Your task to perform on an android device: Search for beats solo 3 on ebay, select the first entry, and add it to the cart. Image 0: 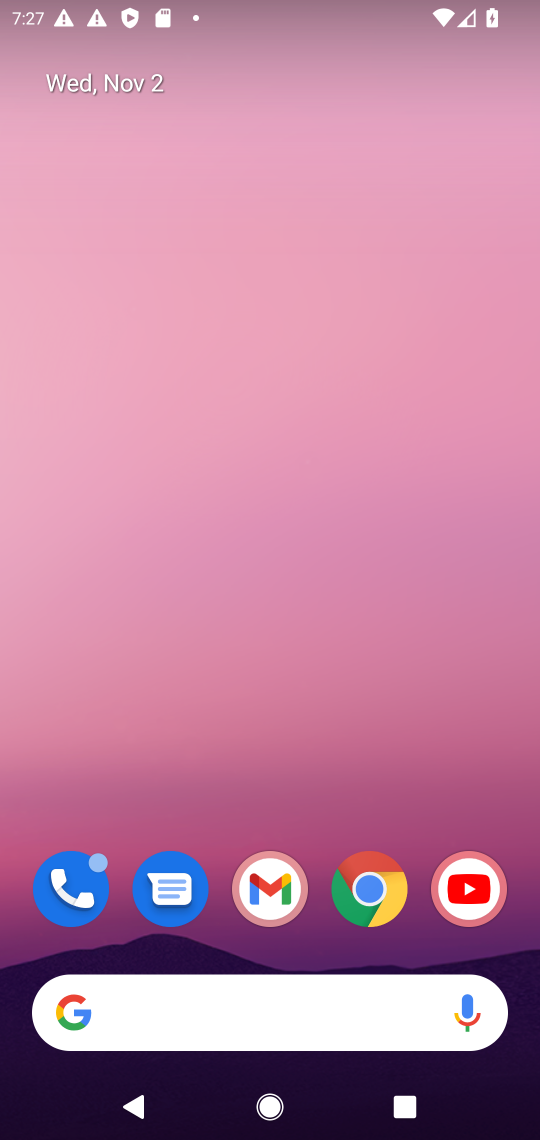
Step 0: press home button
Your task to perform on an android device: Search for beats solo 3 on ebay, select the first entry, and add it to the cart. Image 1: 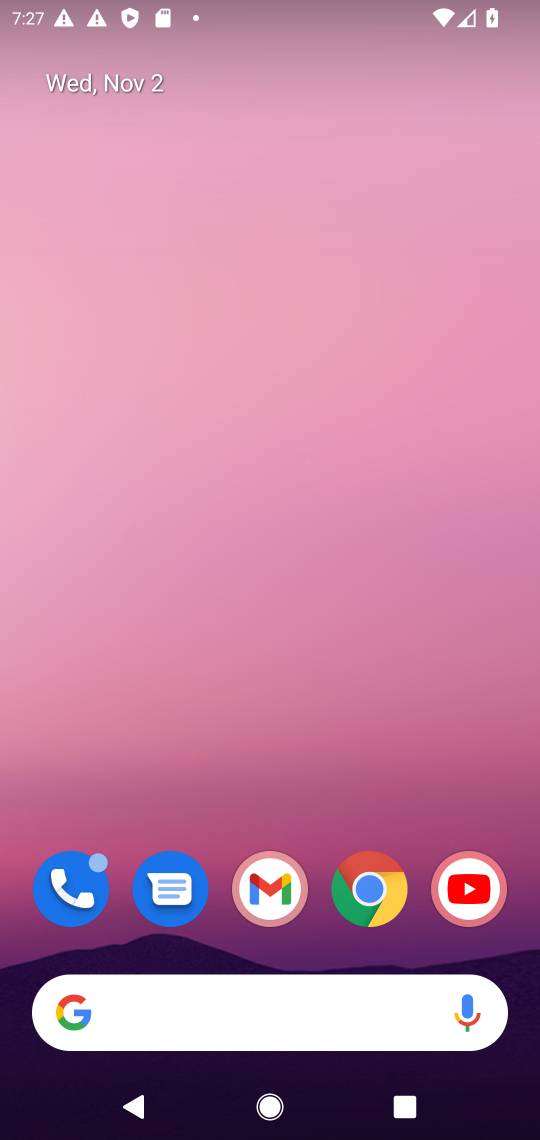
Step 1: drag from (313, 846) to (286, 128)
Your task to perform on an android device: Search for beats solo 3 on ebay, select the first entry, and add it to the cart. Image 2: 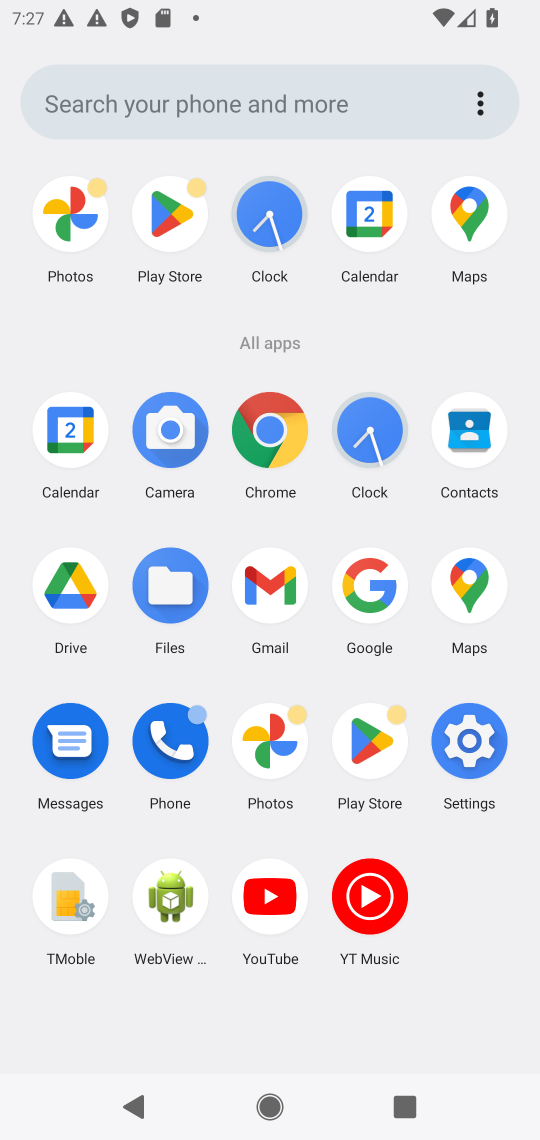
Step 2: click (266, 424)
Your task to perform on an android device: Search for beats solo 3 on ebay, select the first entry, and add it to the cart. Image 3: 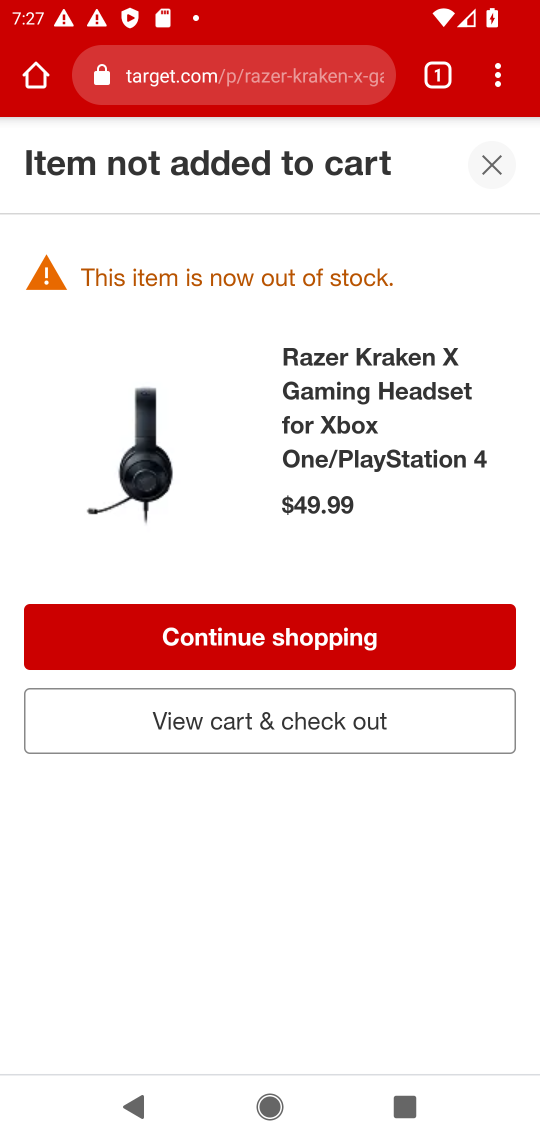
Step 3: click (494, 165)
Your task to perform on an android device: Search for beats solo 3 on ebay, select the first entry, and add it to the cart. Image 4: 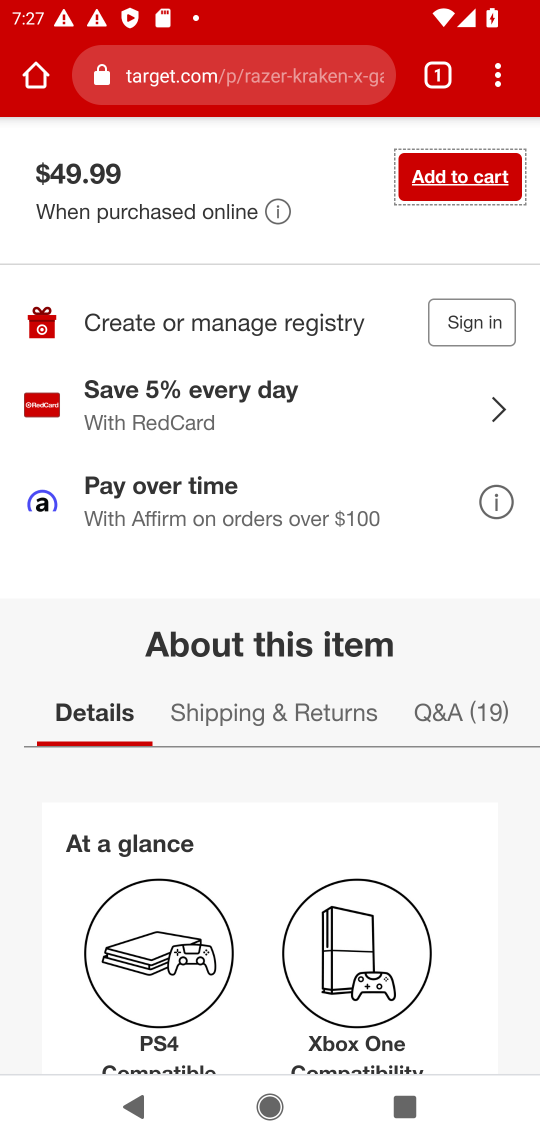
Step 4: click (171, 82)
Your task to perform on an android device: Search for beats solo 3 on ebay, select the first entry, and add it to the cart. Image 5: 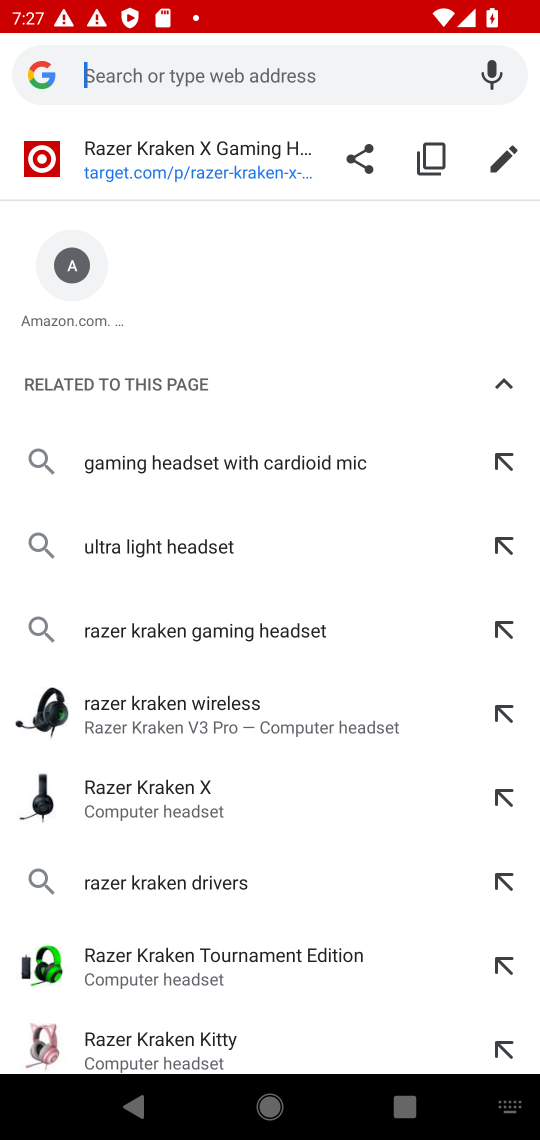
Step 5: type "ebay"
Your task to perform on an android device: Search for beats solo 3 on ebay, select the first entry, and add it to the cart. Image 6: 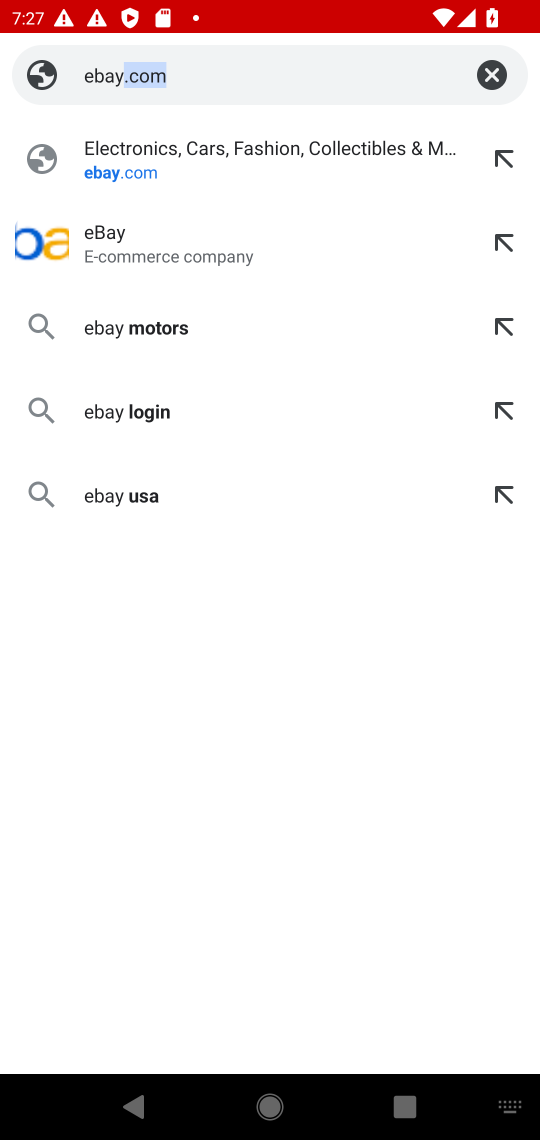
Step 6: click (160, 163)
Your task to perform on an android device: Search for beats solo 3 on ebay, select the first entry, and add it to the cart. Image 7: 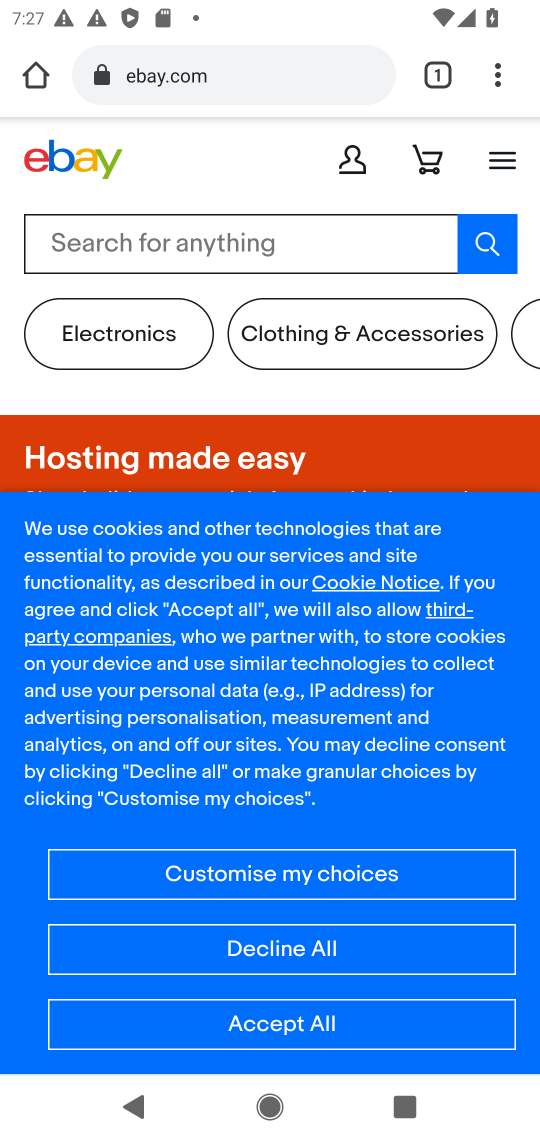
Step 7: click (299, 1033)
Your task to perform on an android device: Search for beats solo 3 on ebay, select the first entry, and add it to the cart. Image 8: 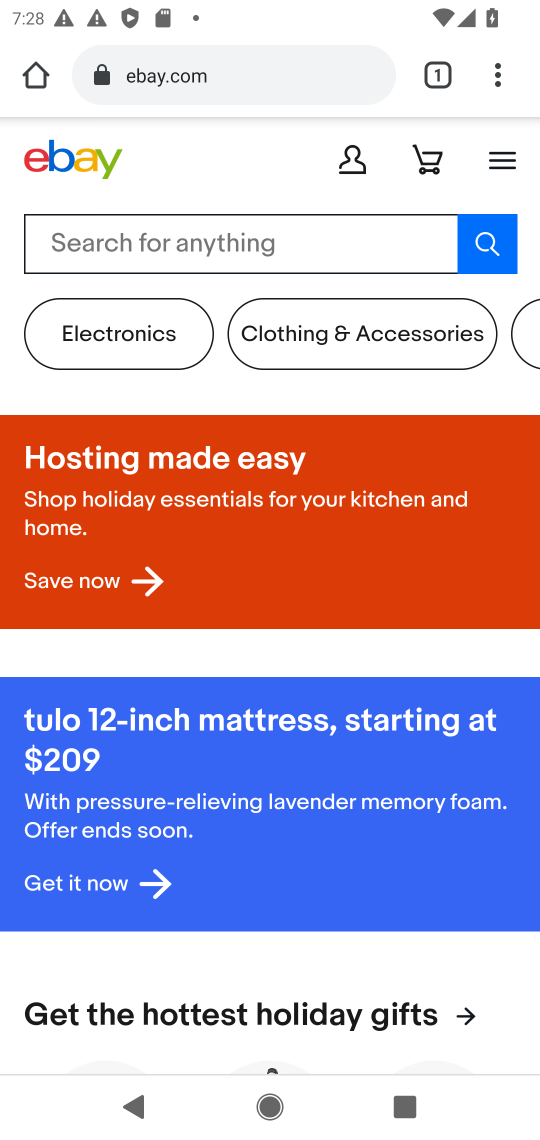
Step 8: click (198, 235)
Your task to perform on an android device: Search for beats solo 3 on ebay, select the first entry, and add it to the cart. Image 9: 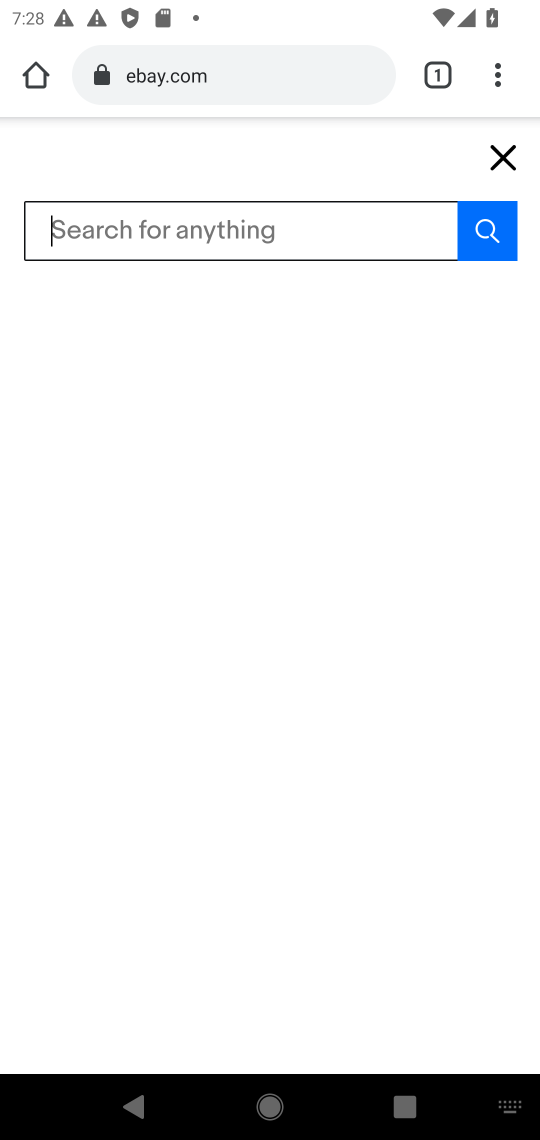
Step 9: type "beats solo 3"
Your task to perform on an android device: Search for beats solo 3 on ebay, select the first entry, and add it to the cart. Image 10: 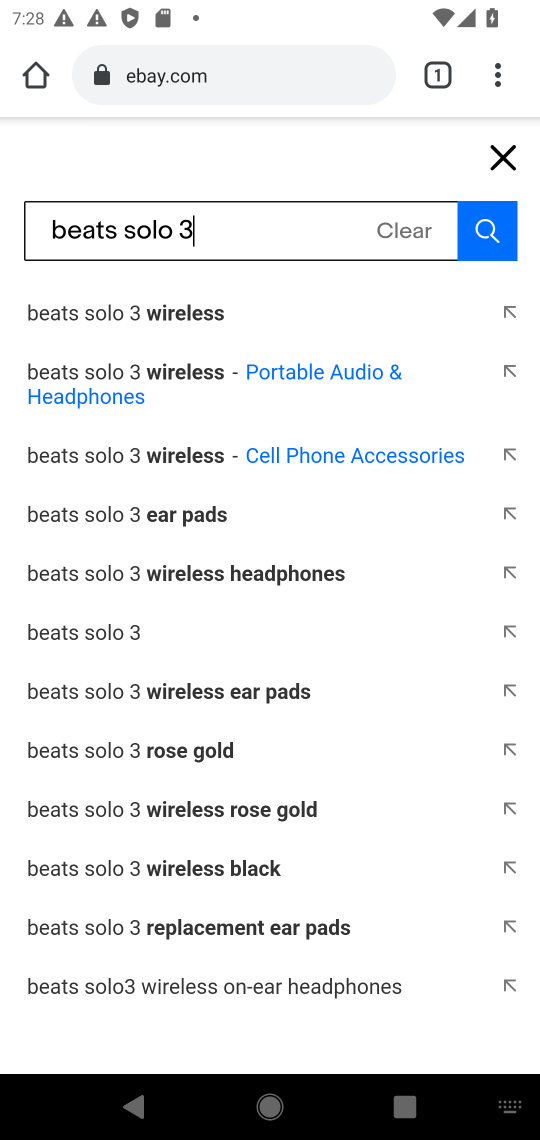
Step 10: click (243, 373)
Your task to perform on an android device: Search for beats solo 3 on ebay, select the first entry, and add it to the cart. Image 11: 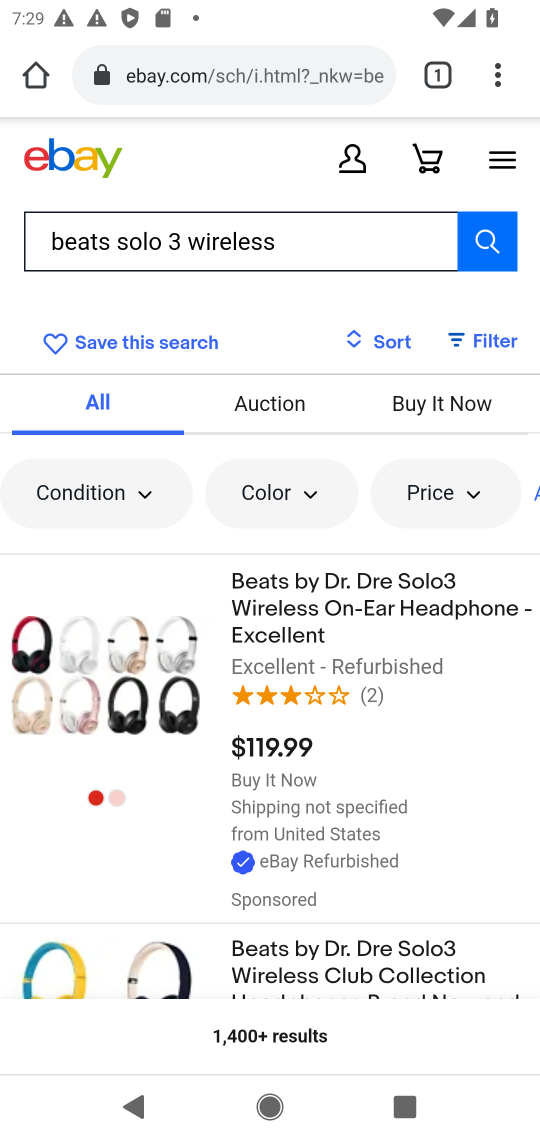
Step 11: click (314, 604)
Your task to perform on an android device: Search for beats solo 3 on ebay, select the first entry, and add it to the cart. Image 12: 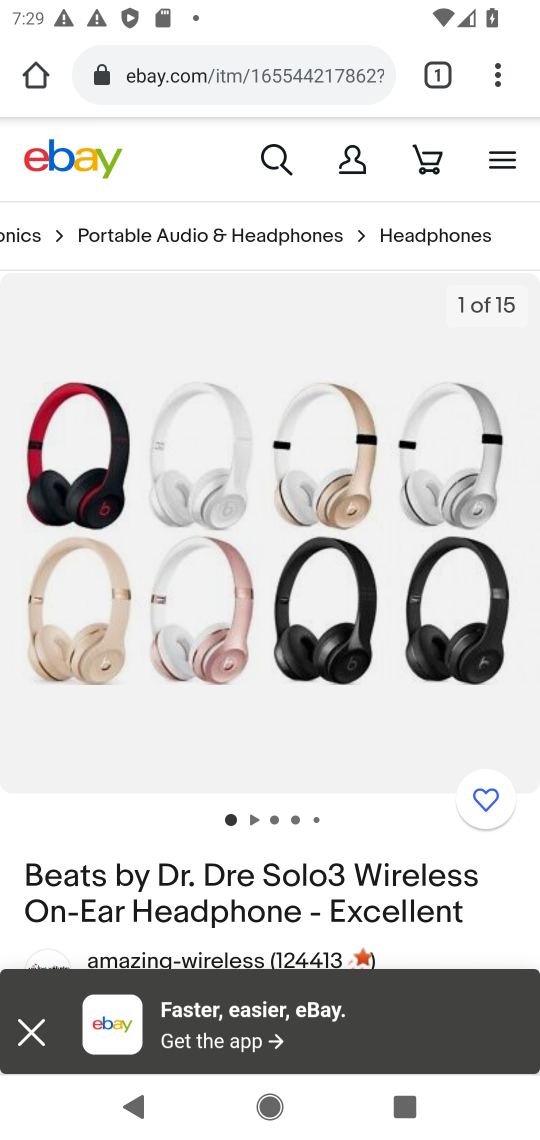
Step 12: drag from (302, 894) to (300, 270)
Your task to perform on an android device: Search for beats solo 3 on ebay, select the first entry, and add it to the cart. Image 13: 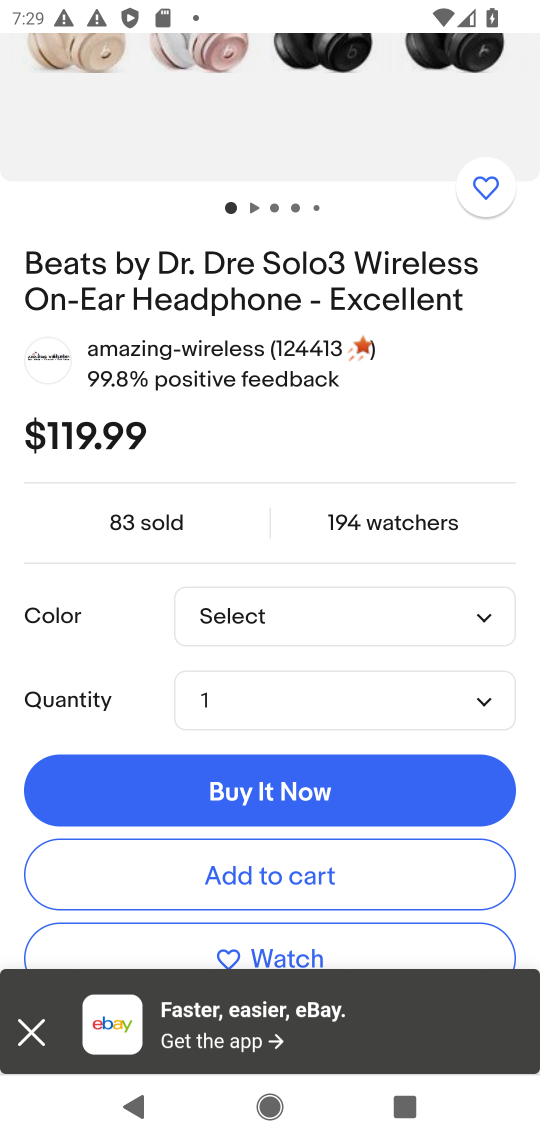
Step 13: click (267, 869)
Your task to perform on an android device: Search for beats solo 3 on ebay, select the first entry, and add it to the cart. Image 14: 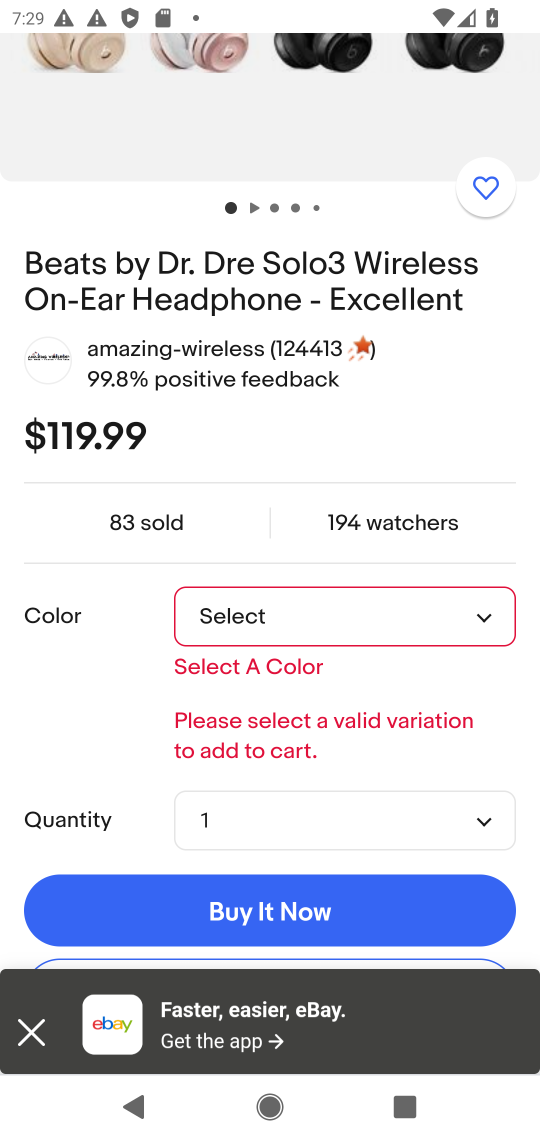
Step 14: drag from (304, 849) to (309, 542)
Your task to perform on an android device: Search for beats solo 3 on ebay, select the first entry, and add it to the cart. Image 15: 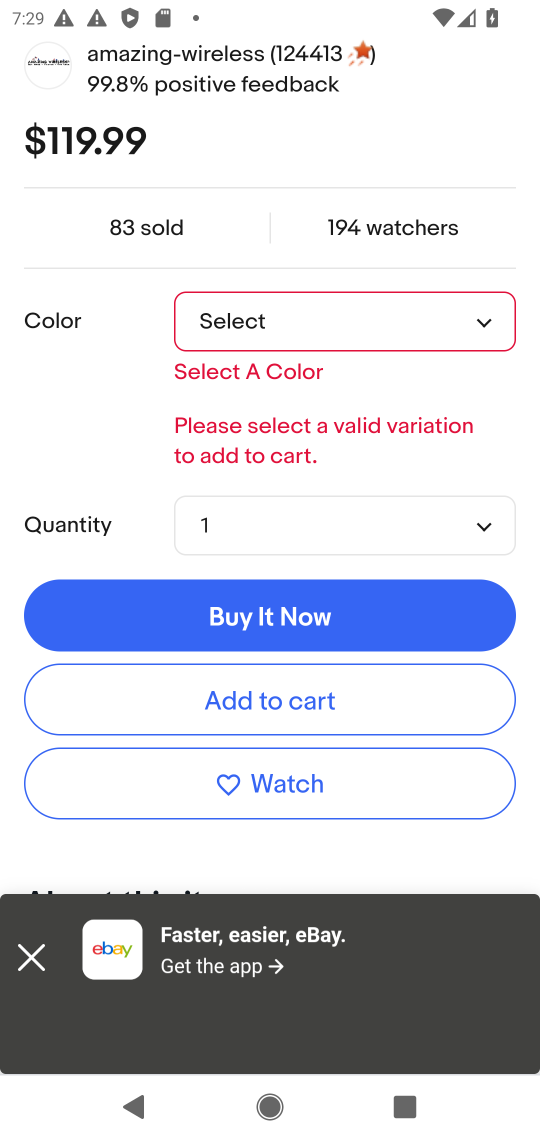
Step 15: click (477, 318)
Your task to perform on an android device: Search for beats solo 3 on ebay, select the first entry, and add it to the cart. Image 16: 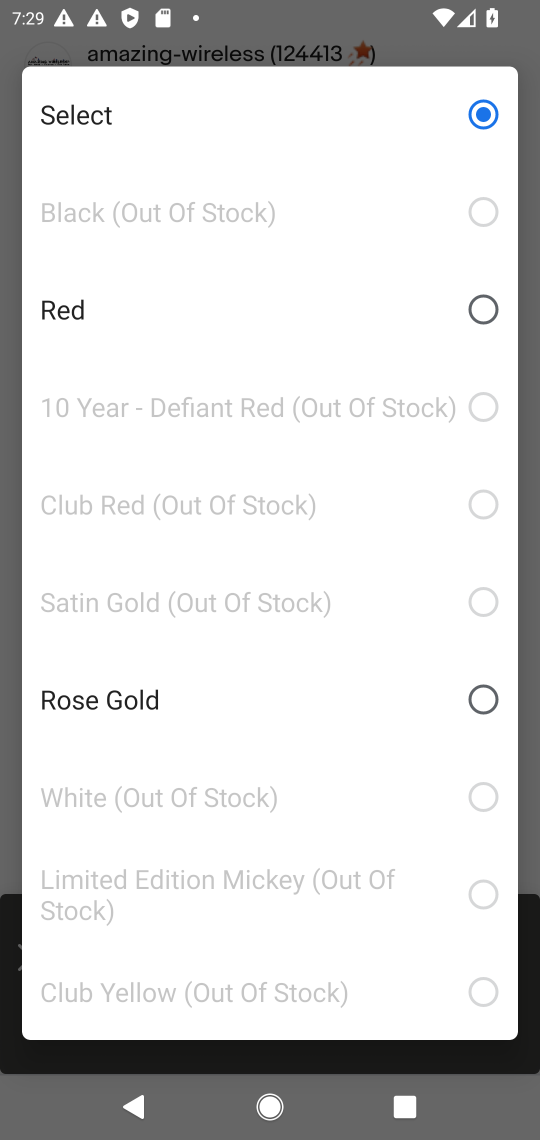
Step 16: click (479, 313)
Your task to perform on an android device: Search for beats solo 3 on ebay, select the first entry, and add it to the cart. Image 17: 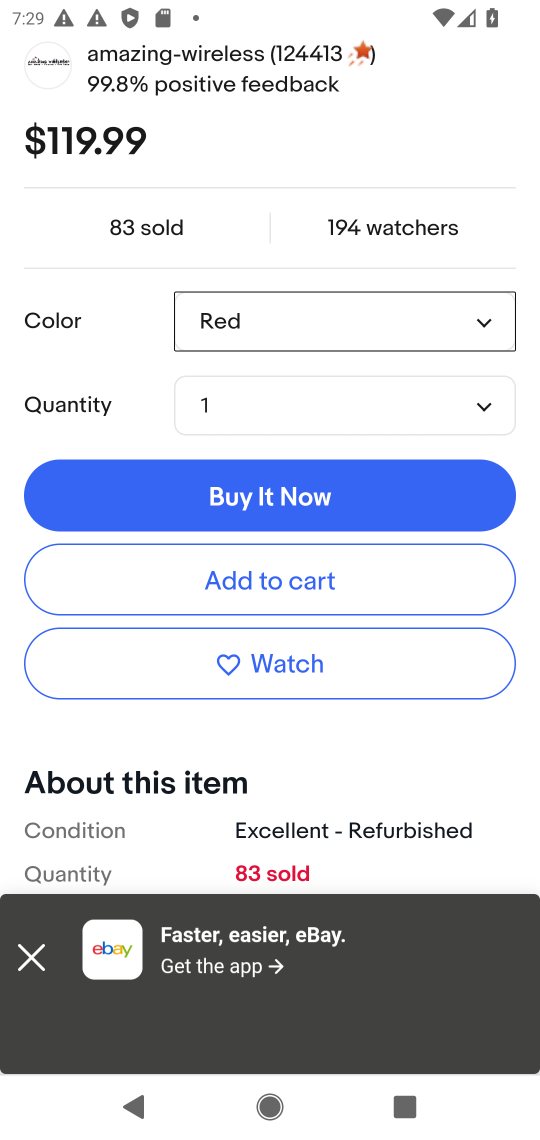
Step 17: click (282, 590)
Your task to perform on an android device: Search for beats solo 3 on ebay, select the first entry, and add it to the cart. Image 18: 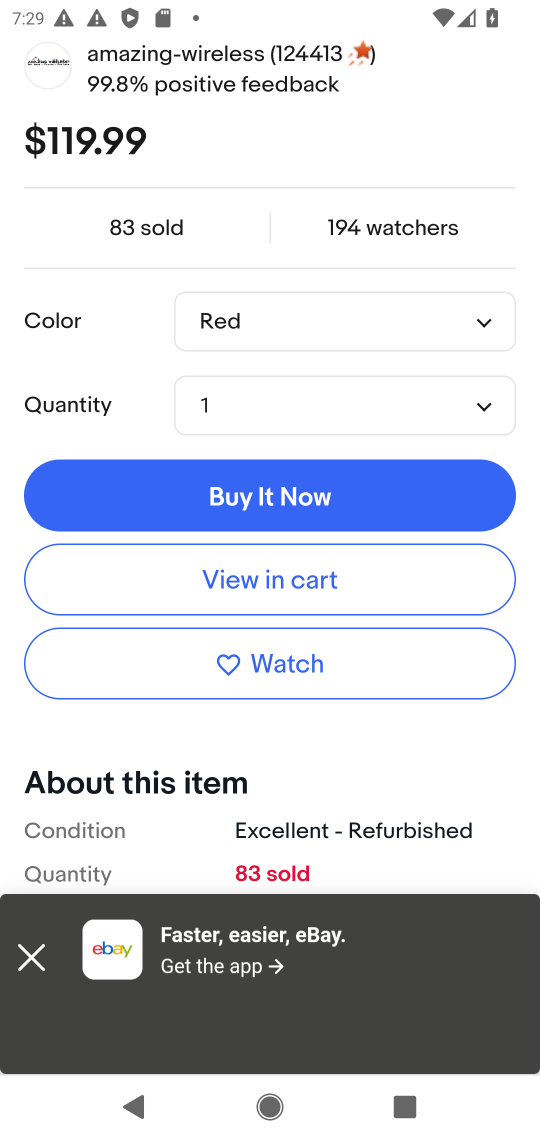
Step 18: click (271, 579)
Your task to perform on an android device: Search for beats solo 3 on ebay, select the first entry, and add it to the cart. Image 19: 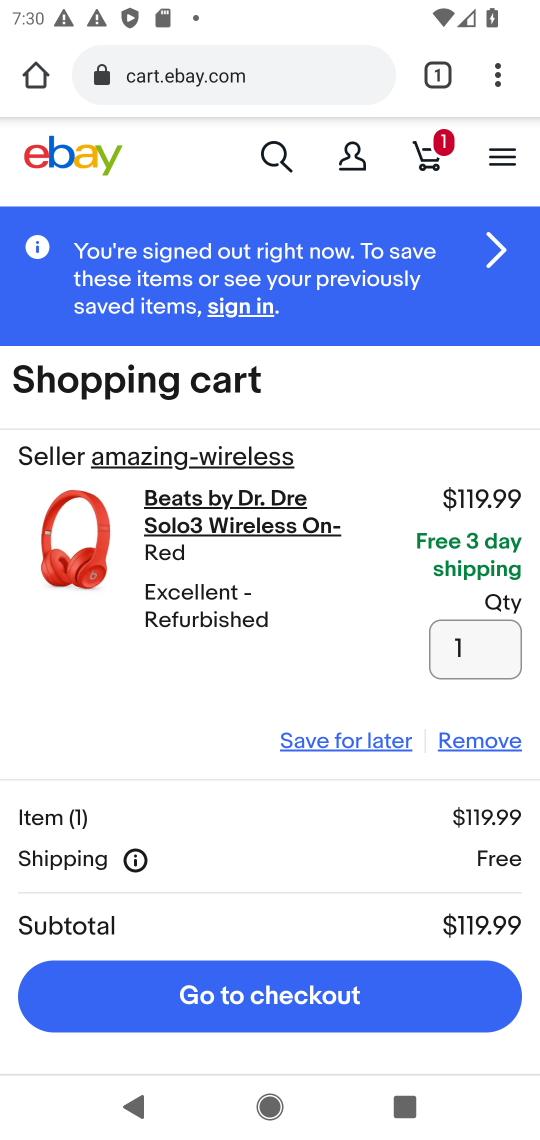
Step 19: task complete